Your task to perform on an android device: Is it going to rain today? Image 0: 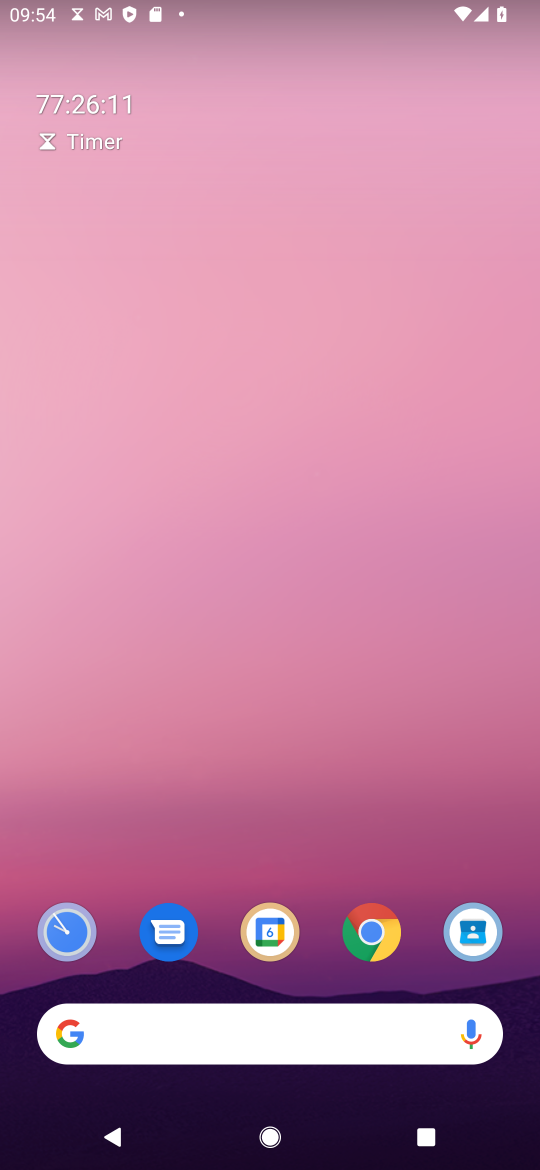
Step 0: drag from (423, 812) to (214, 5)
Your task to perform on an android device: Is it going to rain today? Image 1: 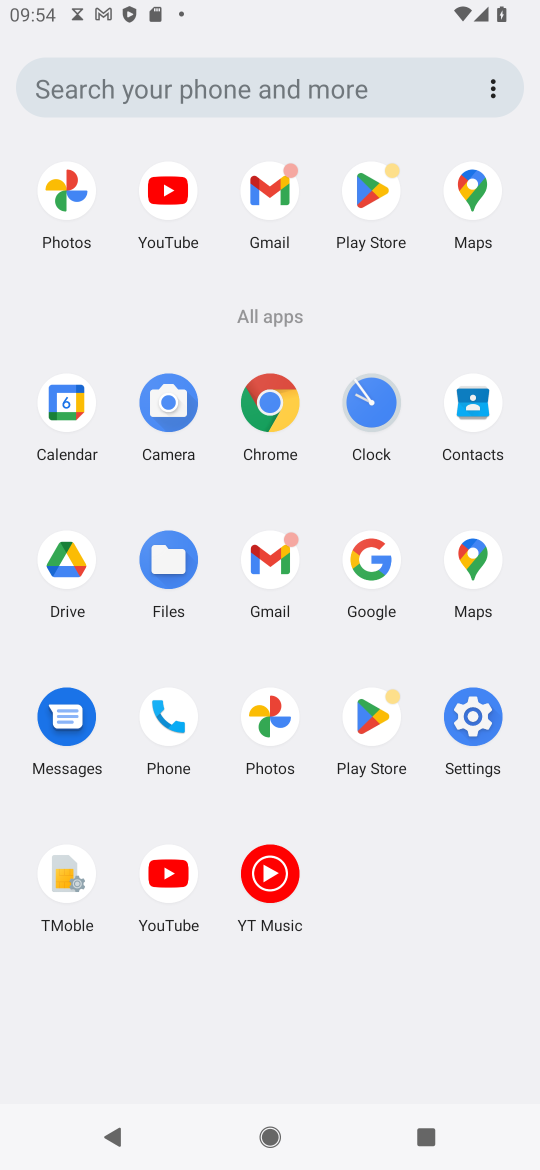
Step 1: click (277, 418)
Your task to perform on an android device: Is it going to rain today? Image 2: 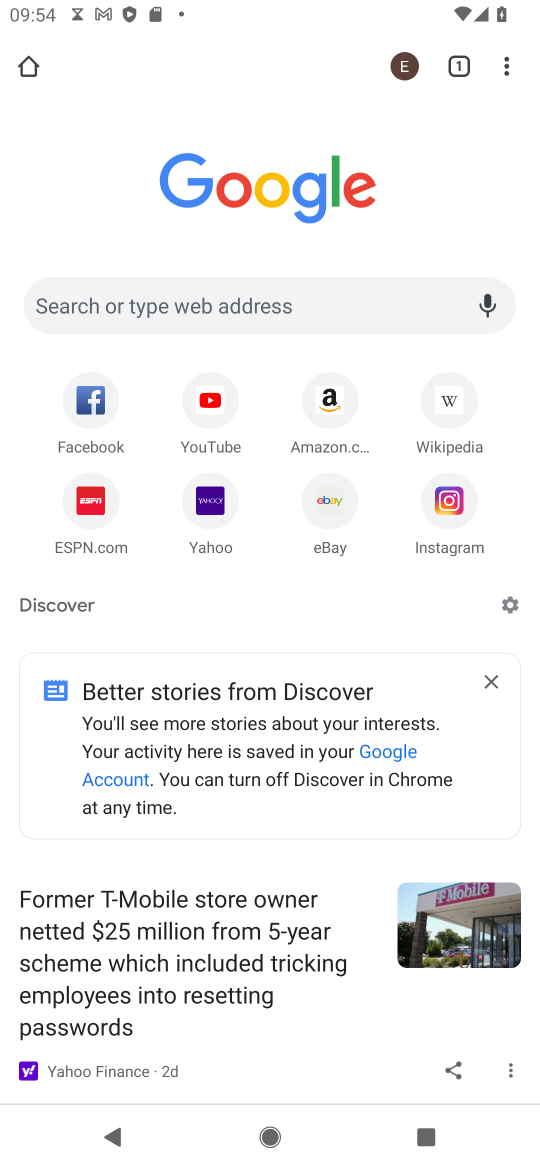
Step 2: click (404, 322)
Your task to perform on an android device: Is it going to rain today? Image 3: 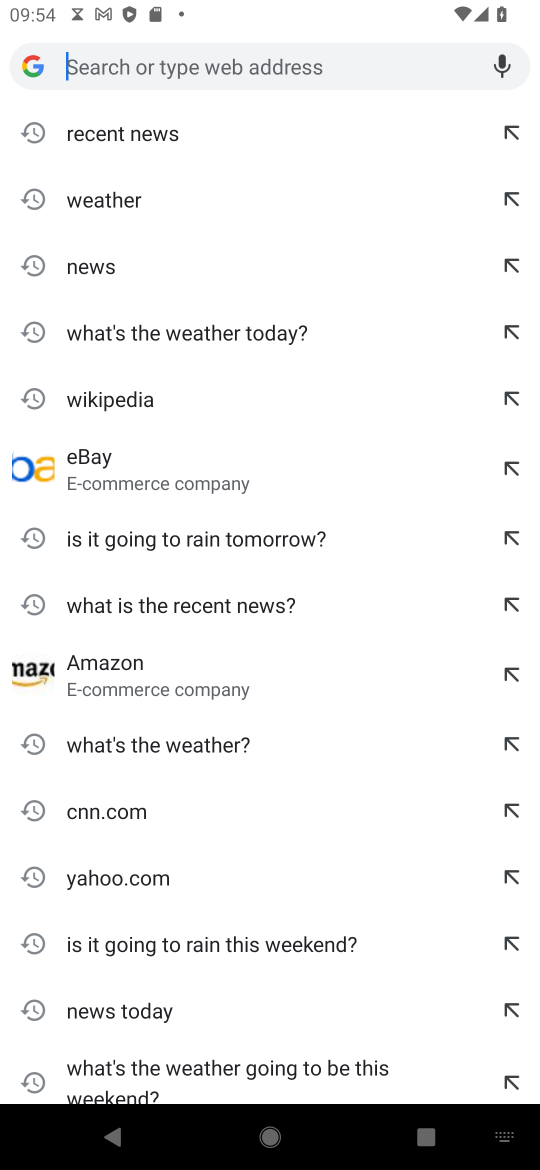
Step 3: type "Is it going to rain today?"
Your task to perform on an android device: Is it going to rain today? Image 4: 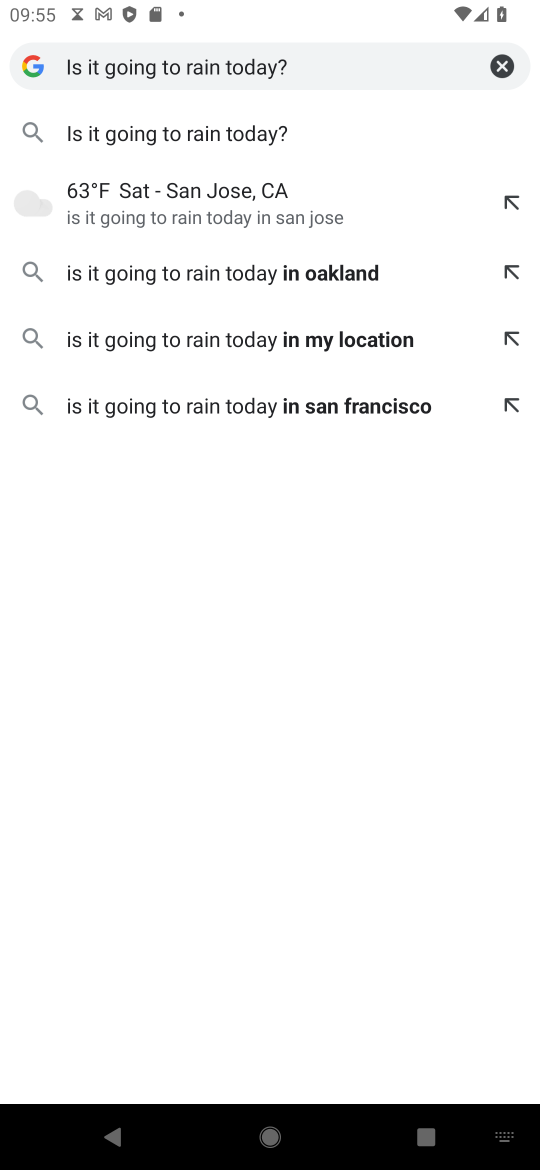
Step 4: click (306, 145)
Your task to perform on an android device: Is it going to rain today? Image 5: 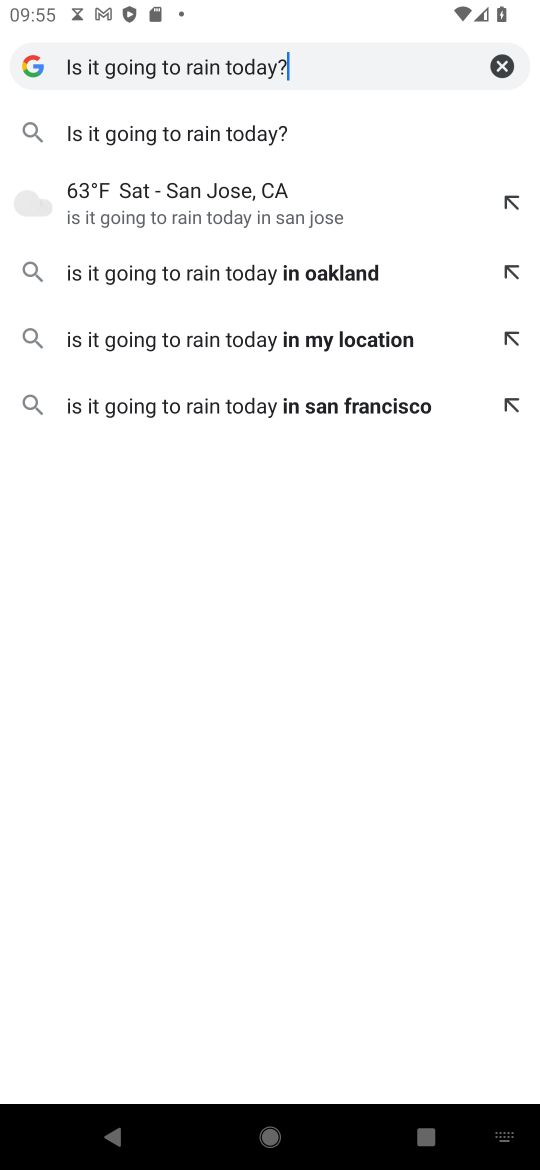
Step 5: click (227, 136)
Your task to perform on an android device: Is it going to rain today? Image 6: 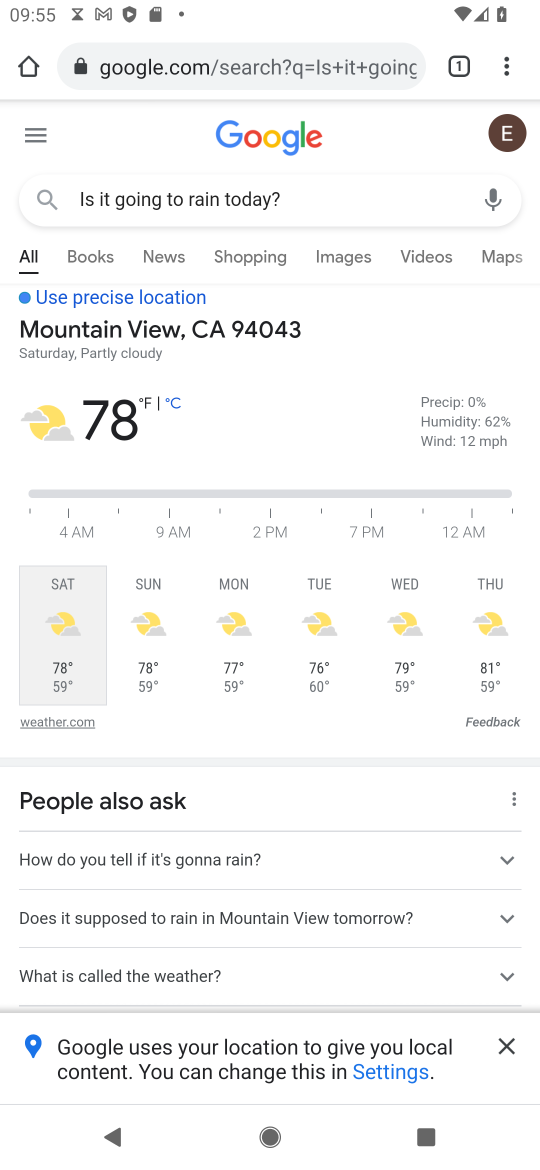
Step 6: task complete